Your task to perform on an android device: Open calendar and show me the fourth week of next month Image 0: 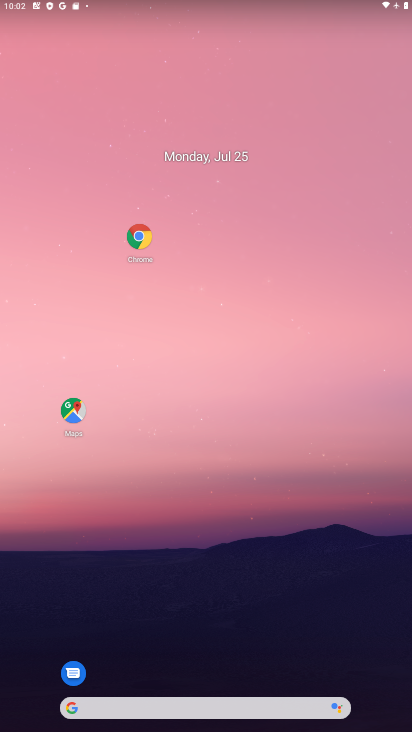
Step 0: drag from (230, 668) to (256, 99)
Your task to perform on an android device: Open calendar and show me the fourth week of next month Image 1: 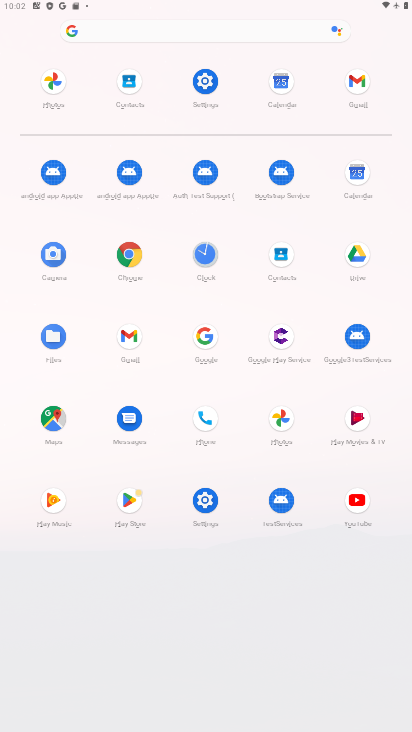
Step 1: task complete